Your task to perform on an android device: star an email in the gmail app Image 0: 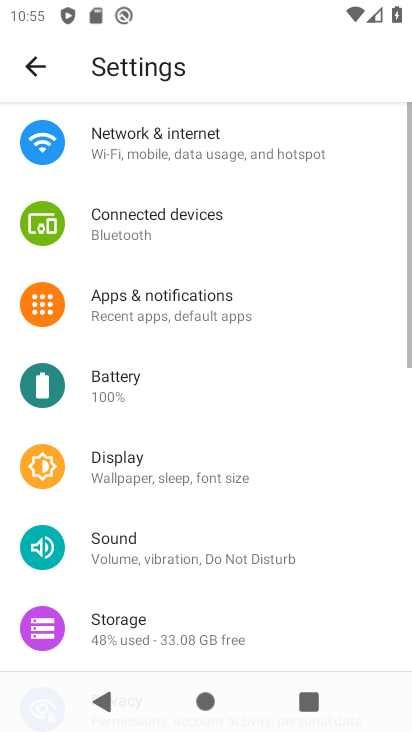
Step 0: press home button
Your task to perform on an android device: star an email in the gmail app Image 1: 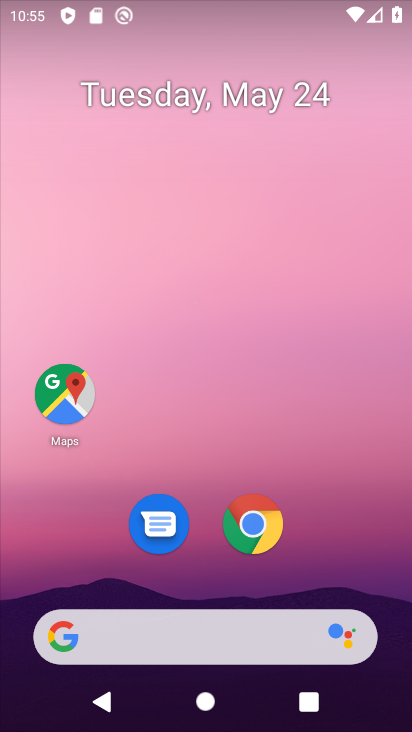
Step 1: drag from (245, 452) to (194, 25)
Your task to perform on an android device: star an email in the gmail app Image 2: 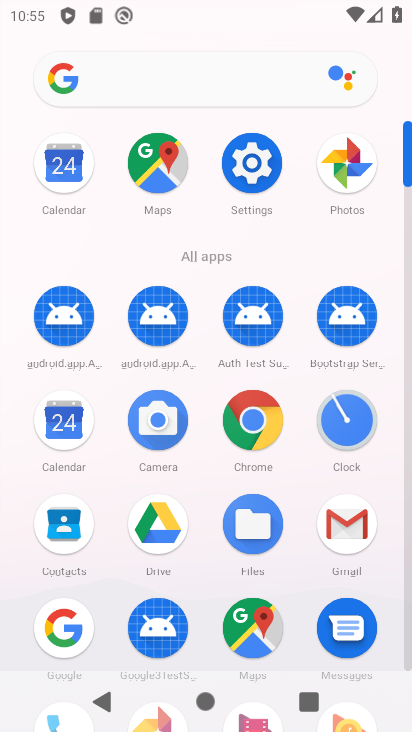
Step 2: click (344, 520)
Your task to perform on an android device: star an email in the gmail app Image 3: 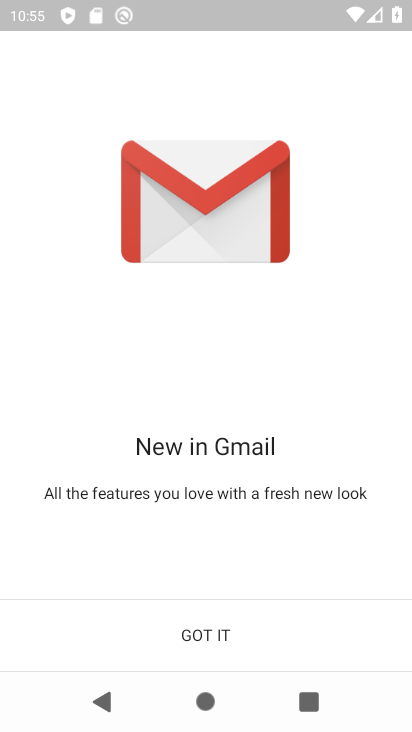
Step 3: click (265, 626)
Your task to perform on an android device: star an email in the gmail app Image 4: 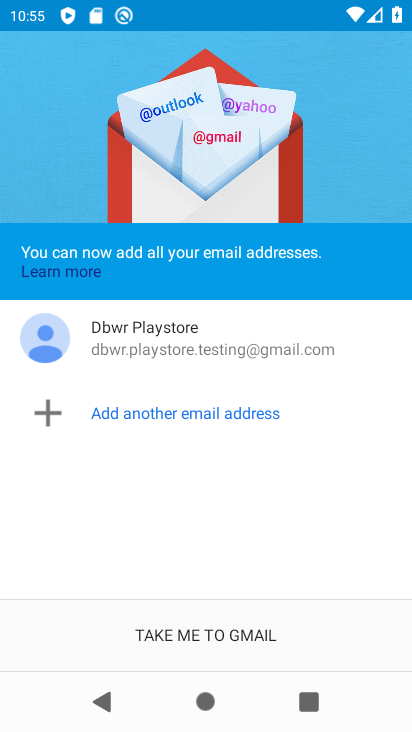
Step 4: click (265, 626)
Your task to perform on an android device: star an email in the gmail app Image 5: 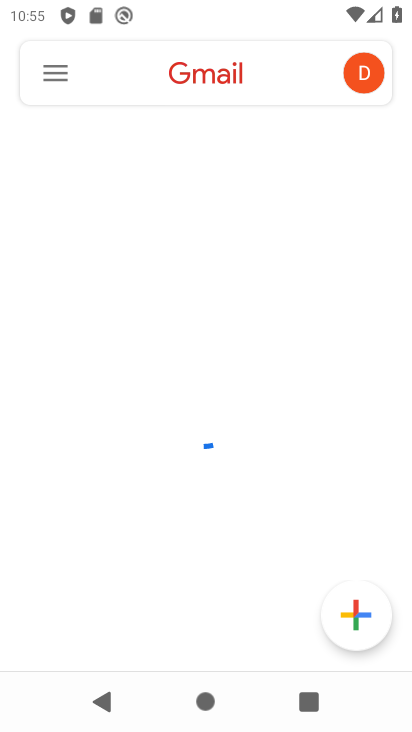
Step 5: click (53, 68)
Your task to perform on an android device: star an email in the gmail app Image 6: 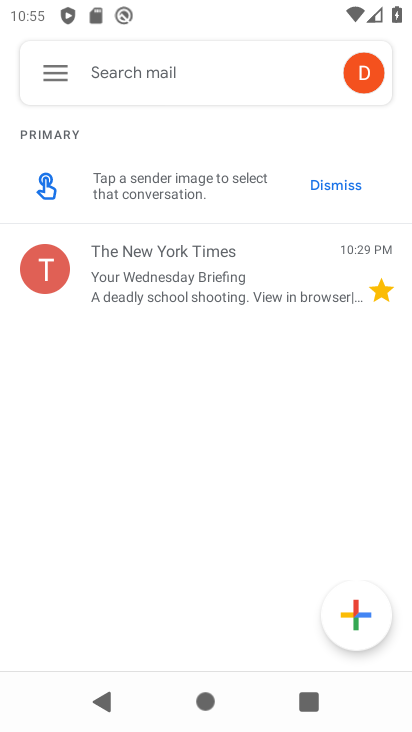
Step 6: click (53, 67)
Your task to perform on an android device: star an email in the gmail app Image 7: 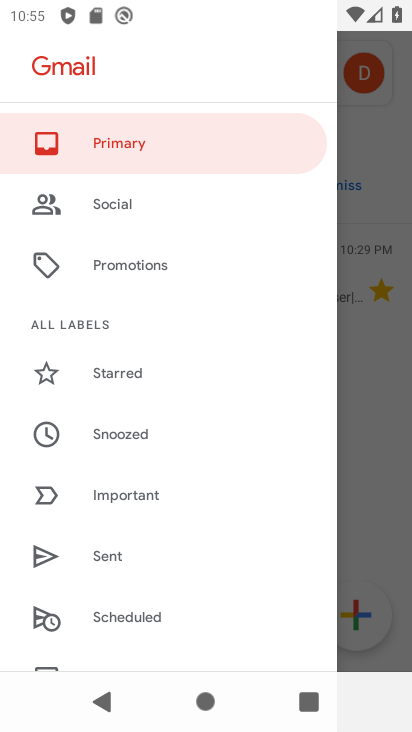
Step 7: drag from (149, 521) to (139, 188)
Your task to perform on an android device: star an email in the gmail app Image 8: 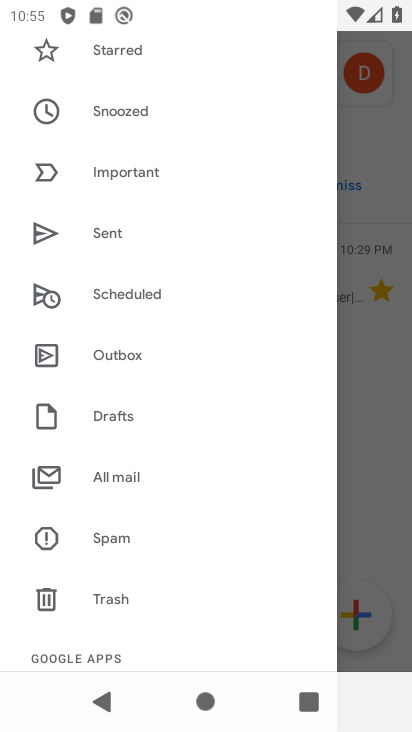
Step 8: click (144, 466)
Your task to perform on an android device: star an email in the gmail app Image 9: 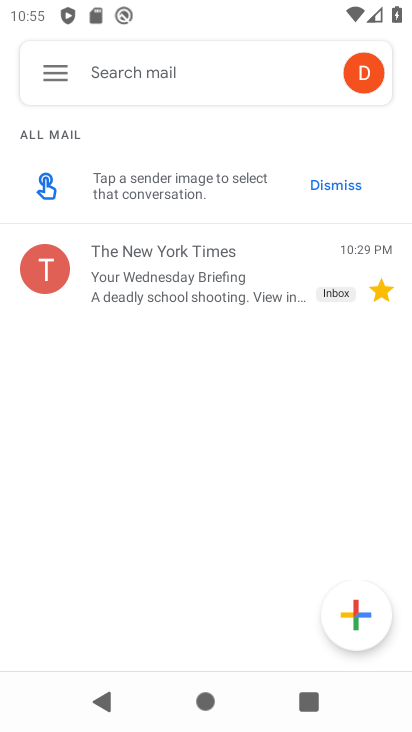
Step 9: task complete